Your task to perform on an android device: Open the stopwatch Image 0: 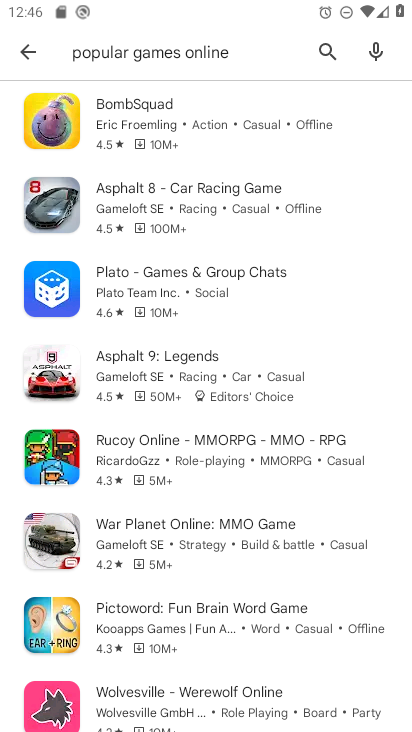
Step 0: press home button
Your task to perform on an android device: Open the stopwatch Image 1: 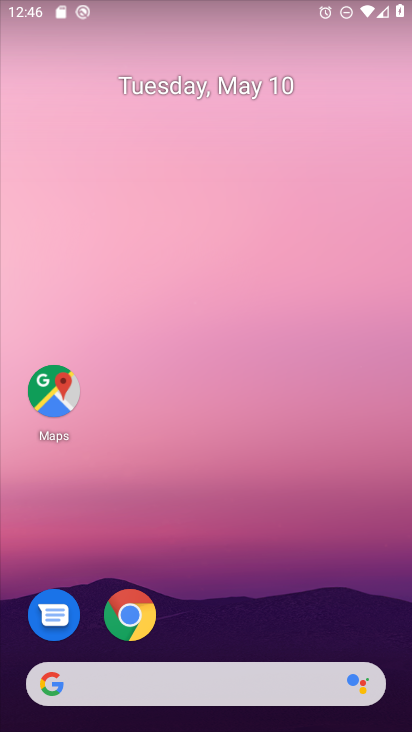
Step 1: drag from (283, 713) to (277, 207)
Your task to perform on an android device: Open the stopwatch Image 2: 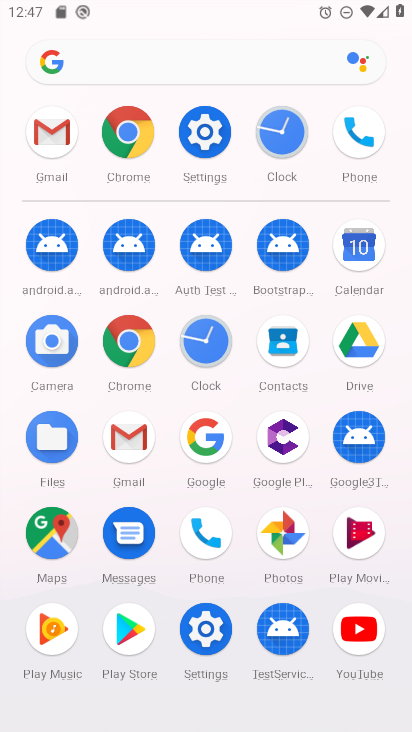
Step 2: click (275, 142)
Your task to perform on an android device: Open the stopwatch Image 3: 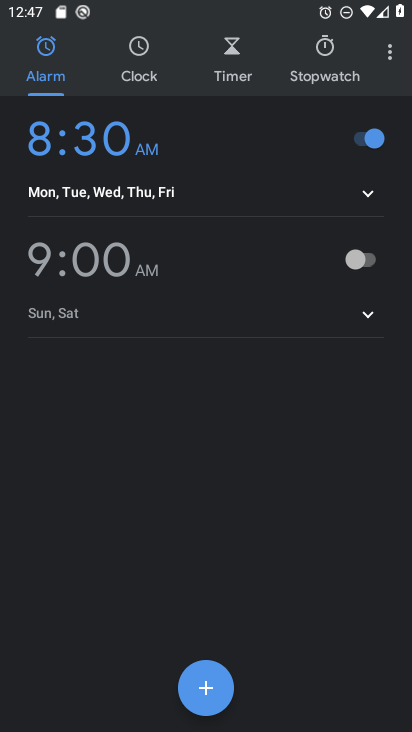
Step 3: click (303, 71)
Your task to perform on an android device: Open the stopwatch Image 4: 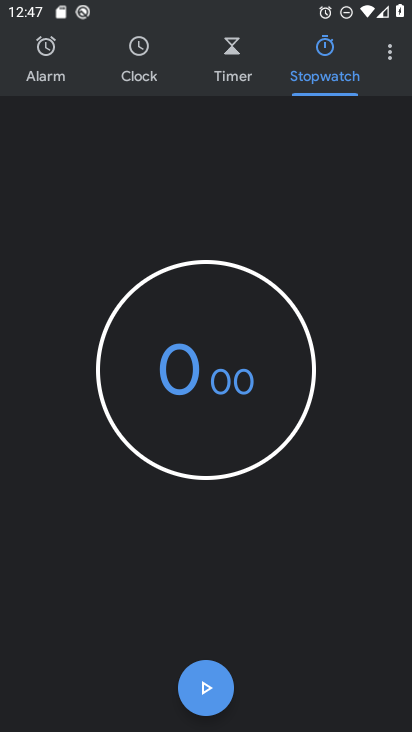
Step 4: task complete